Your task to perform on an android device: toggle notification dots Image 0: 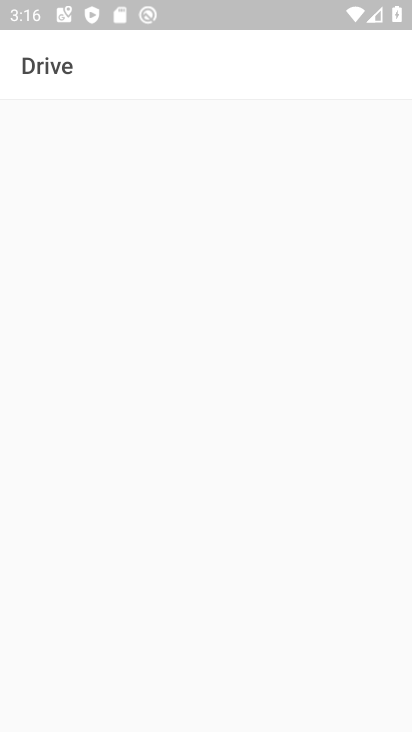
Step 0: press home button
Your task to perform on an android device: toggle notification dots Image 1: 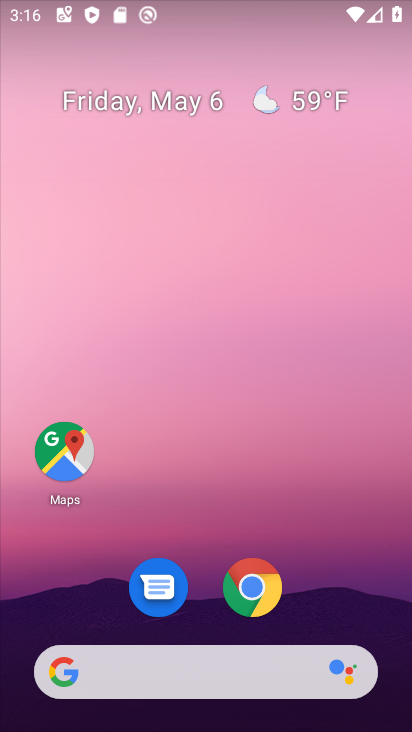
Step 1: drag from (358, 605) to (411, 106)
Your task to perform on an android device: toggle notification dots Image 2: 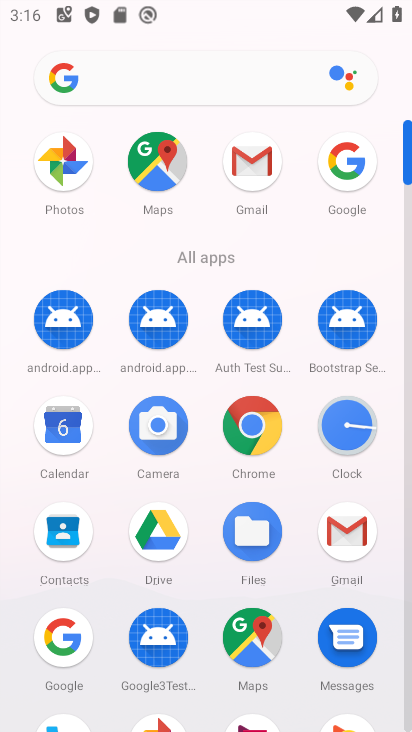
Step 2: drag from (386, 628) to (406, 325)
Your task to perform on an android device: toggle notification dots Image 3: 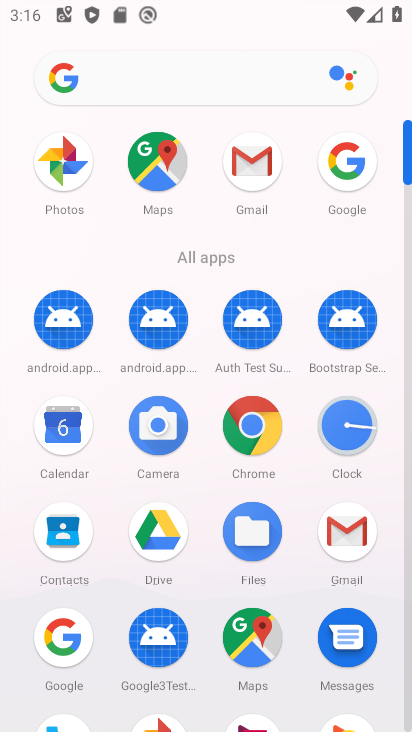
Step 3: drag from (371, 507) to (1, 640)
Your task to perform on an android device: toggle notification dots Image 4: 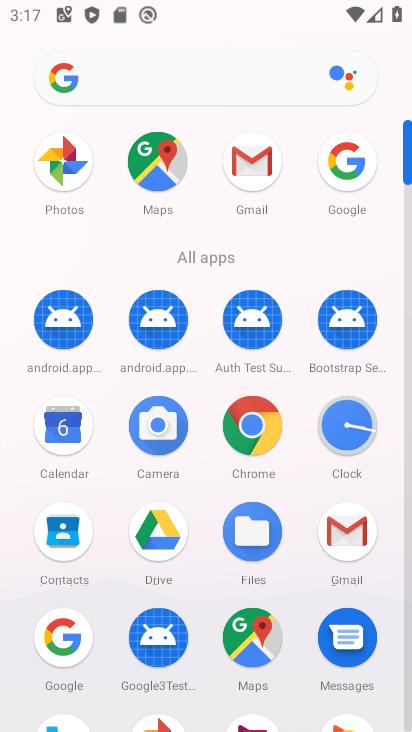
Step 4: drag from (386, 637) to (389, 273)
Your task to perform on an android device: toggle notification dots Image 5: 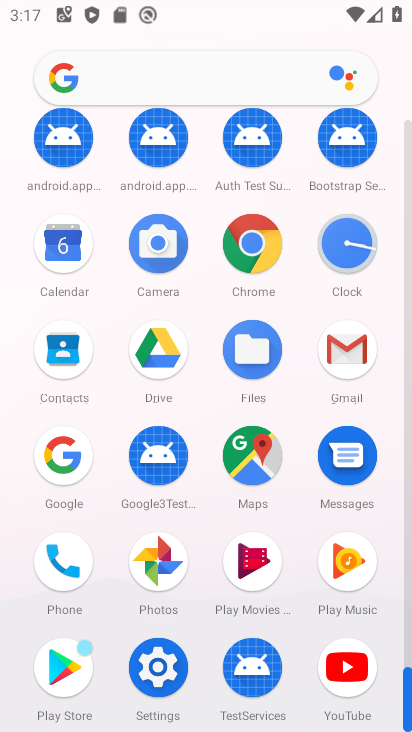
Step 5: click (142, 690)
Your task to perform on an android device: toggle notification dots Image 6: 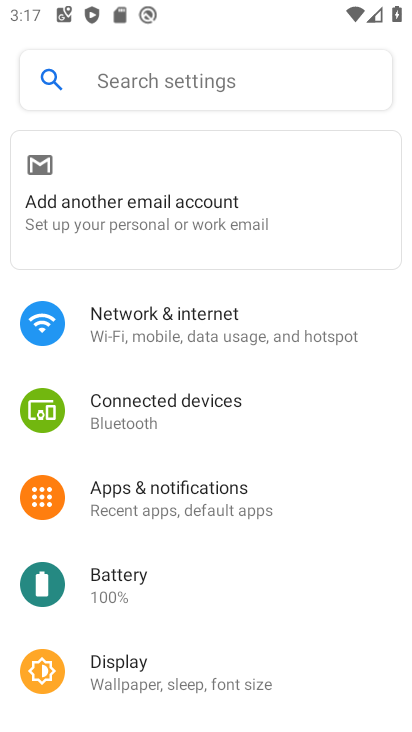
Step 6: click (140, 504)
Your task to perform on an android device: toggle notification dots Image 7: 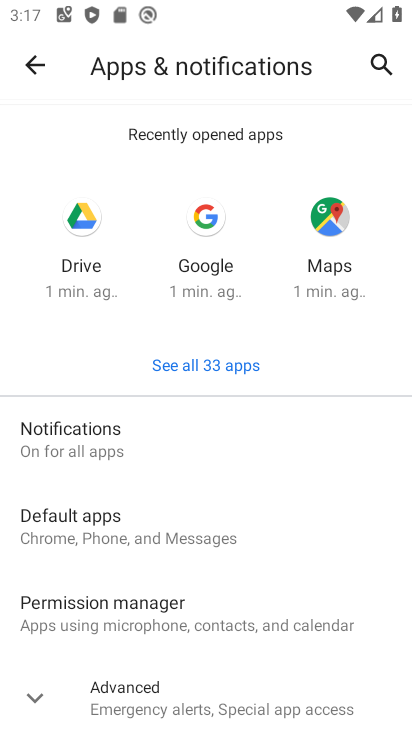
Step 7: click (88, 447)
Your task to perform on an android device: toggle notification dots Image 8: 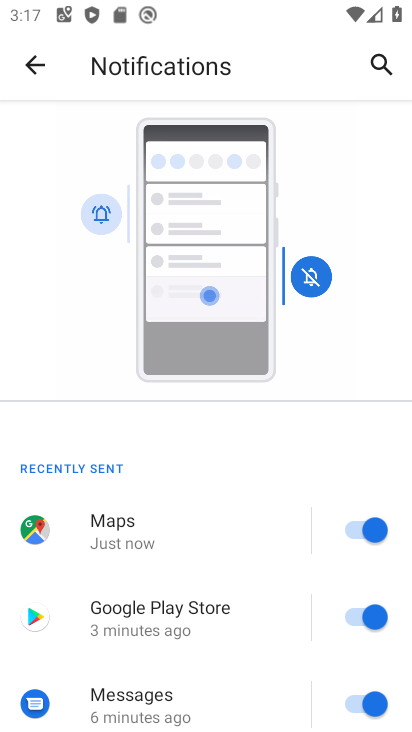
Step 8: drag from (119, 676) to (233, 271)
Your task to perform on an android device: toggle notification dots Image 9: 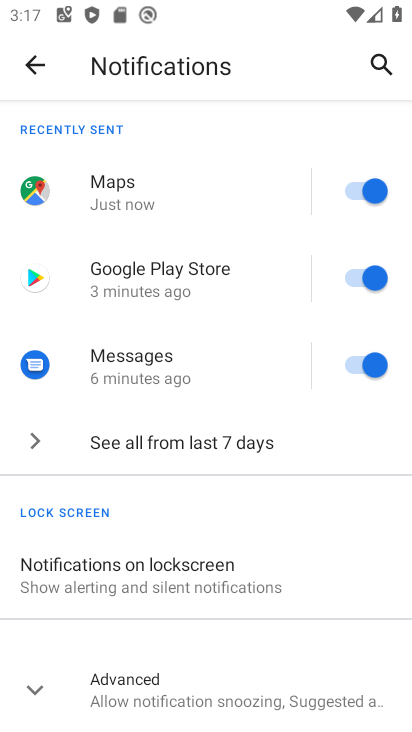
Step 9: drag from (194, 668) to (165, 320)
Your task to perform on an android device: toggle notification dots Image 10: 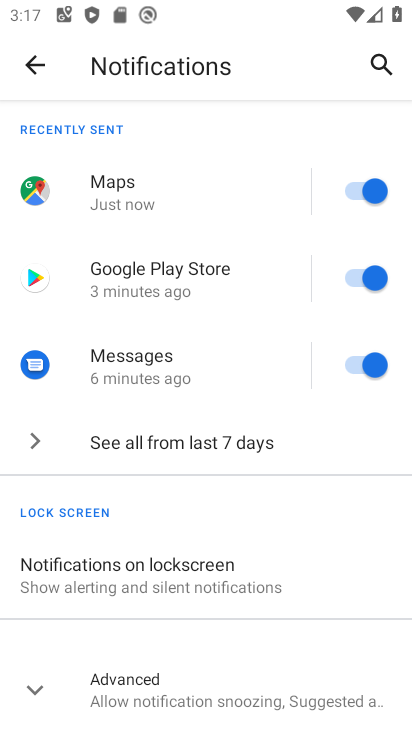
Step 10: click (157, 681)
Your task to perform on an android device: toggle notification dots Image 11: 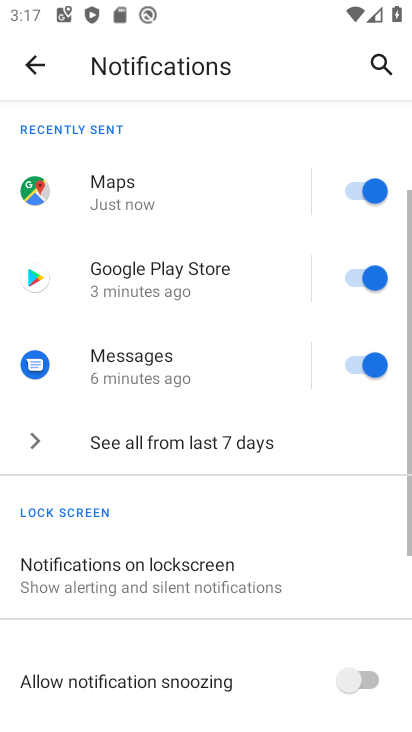
Step 11: task complete